Your task to perform on an android device: Show me the alarms in the clock app Image 0: 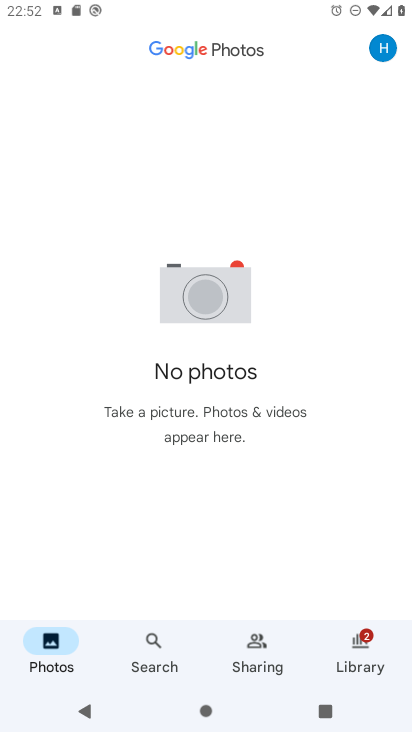
Step 0: press home button
Your task to perform on an android device: Show me the alarms in the clock app Image 1: 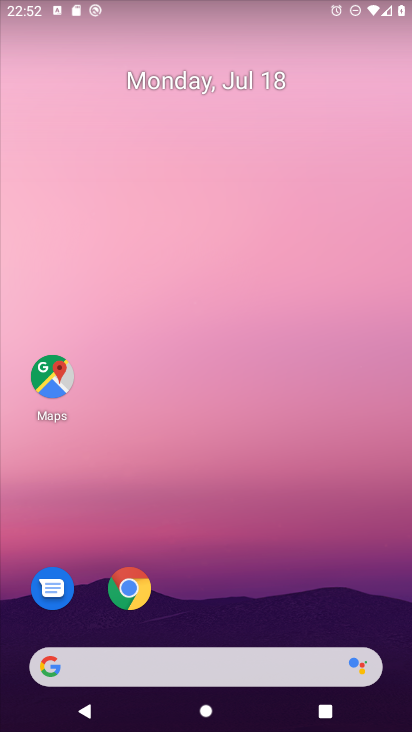
Step 1: drag from (375, 624) to (312, 150)
Your task to perform on an android device: Show me the alarms in the clock app Image 2: 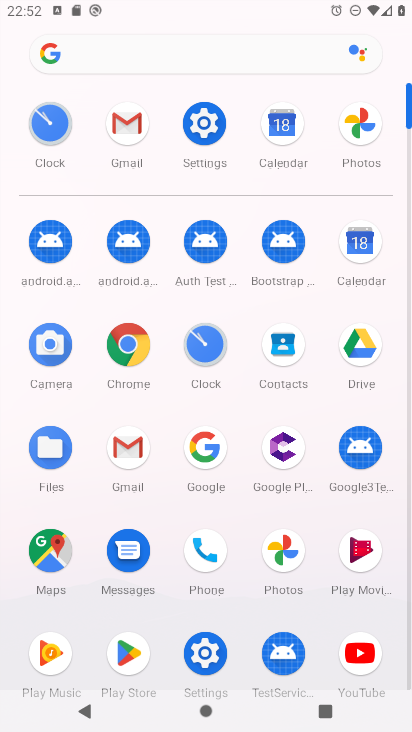
Step 2: click (204, 345)
Your task to perform on an android device: Show me the alarms in the clock app Image 3: 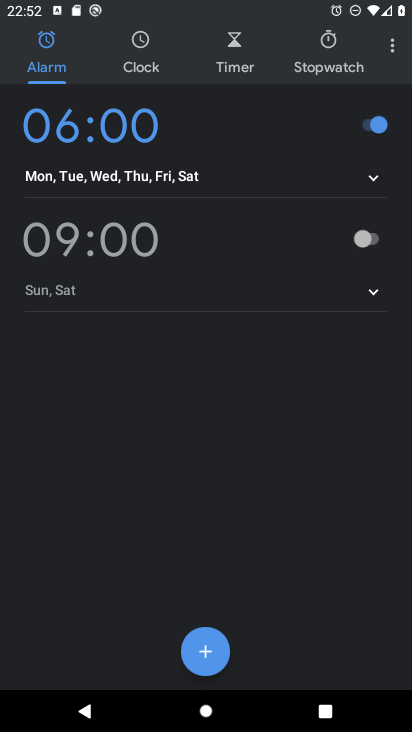
Step 3: task complete